Your task to perform on an android device: allow notifications from all sites in the chrome app Image 0: 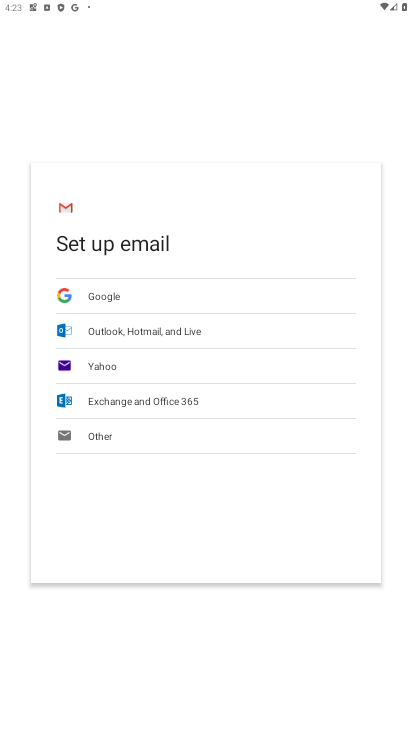
Step 0: press home button
Your task to perform on an android device: allow notifications from all sites in the chrome app Image 1: 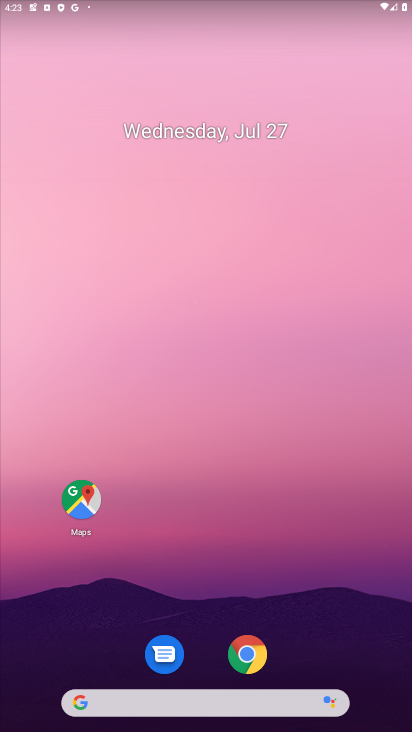
Step 1: drag from (182, 692) to (301, 69)
Your task to perform on an android device: allow notifications from all sites in the chrome app Image 2: 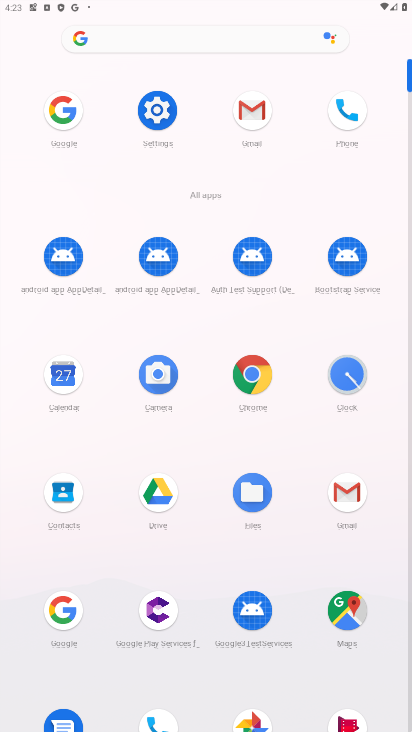
Step 2: click (241, 363)
Your task to perform on an android device: allow notifications from all sites in the chrome app Image 3: 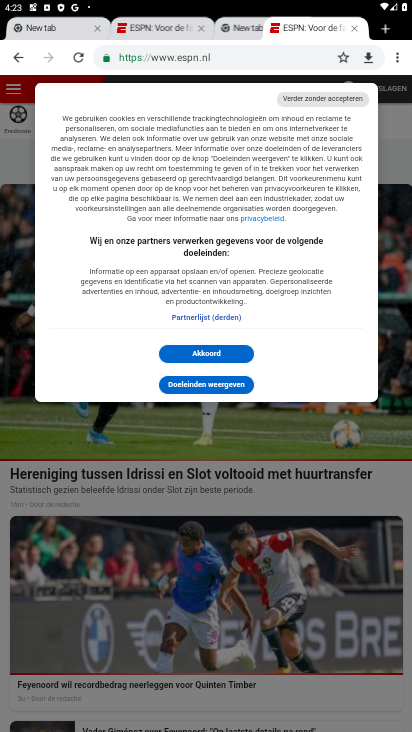
Step 3: click (394, 63)
Your task to perform on an android device: allow notifications from all sites in the chrome app Image 4: 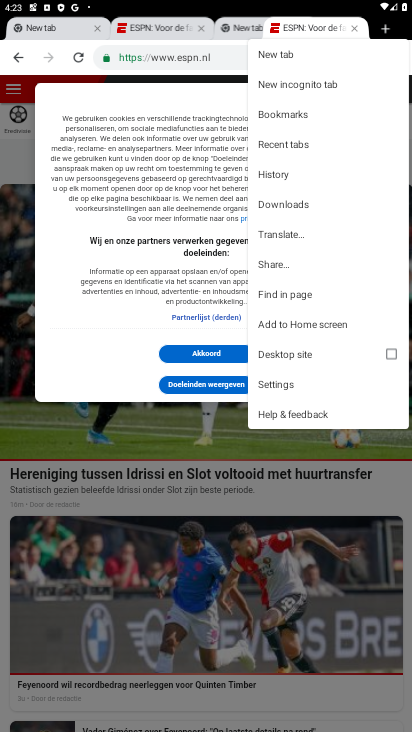
Step 4: click (287, 383)
Your task to perform on an android device: allow notifications from all sites in the chrome app Image 5: 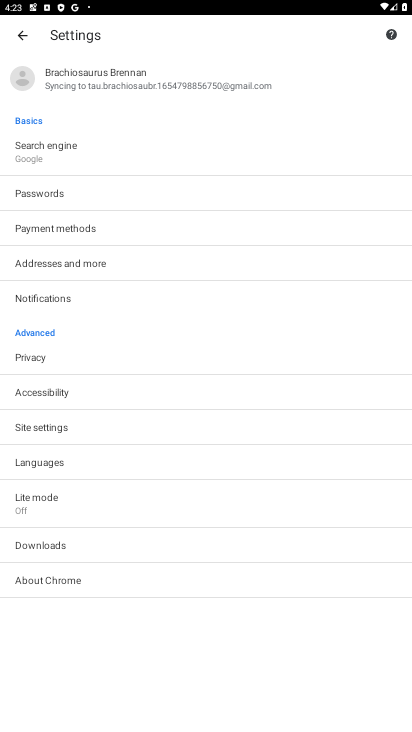
Step 5: click (75, 429)
Your task to perform on an android device: allow notifications from all sites in the chrome app Image 6: 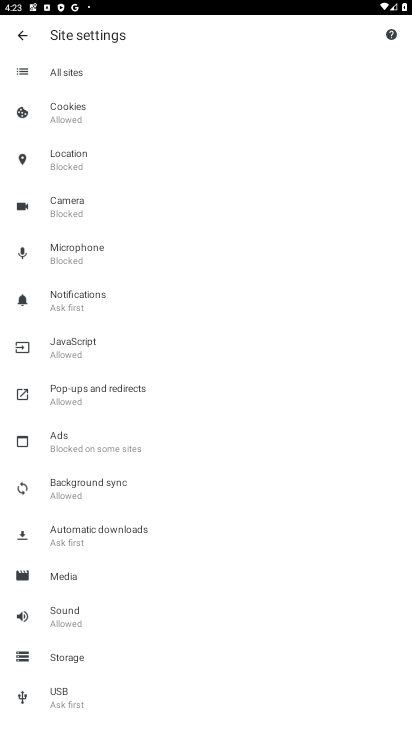
Step 6: click (93, 292)
Your task to perform on an android device: allow notifications from all sites in the chrome app Image 7: 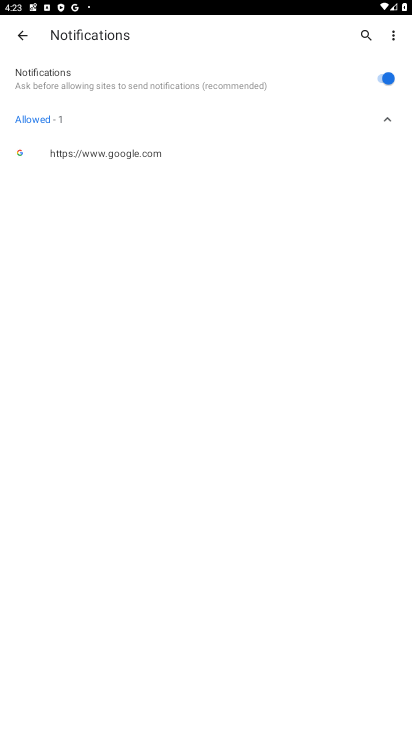
Step 7: task complete